Your task to perform on an android device: Look up the best rated wireless earbuds on Ali Express Image 0: 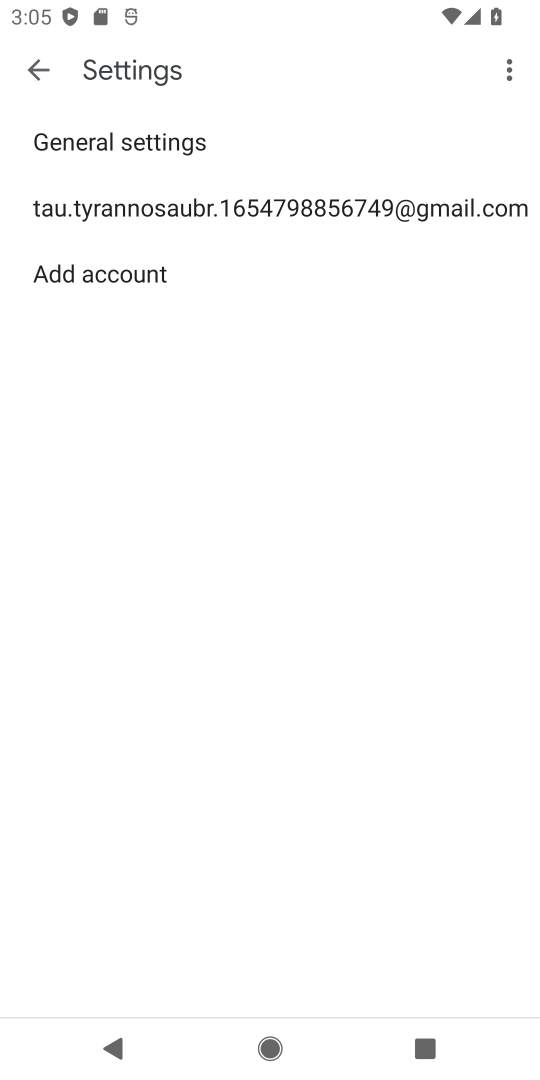
Step 0: press home button
Your task to perform on an android device: Look up the best rated wireless earbuds on Ali Express Image 1: 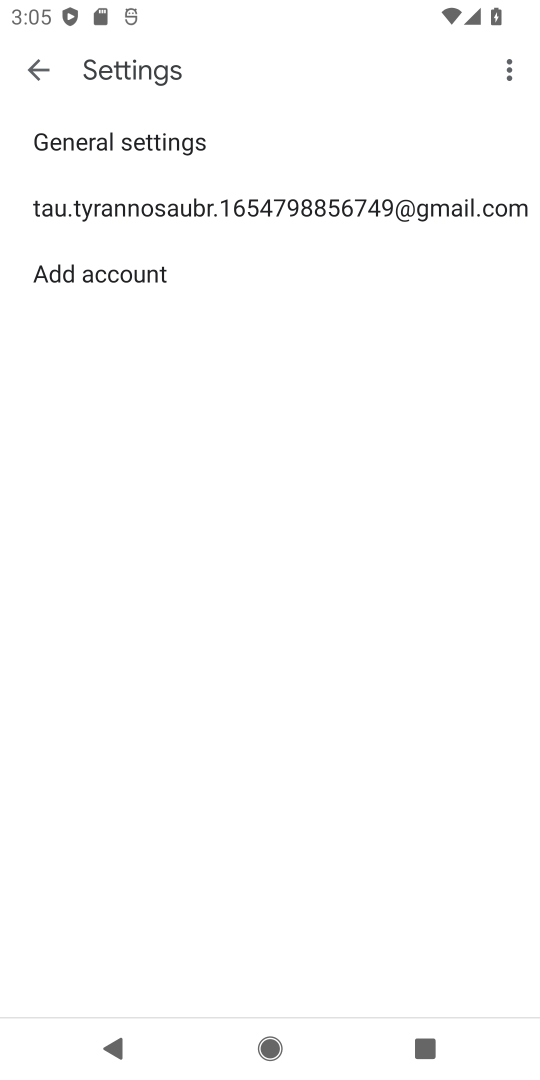
Step 1: type "Aliexpress"
Your task to perform on an android device: Look up the best rated wireless earbuds on Ali Express Image 2: 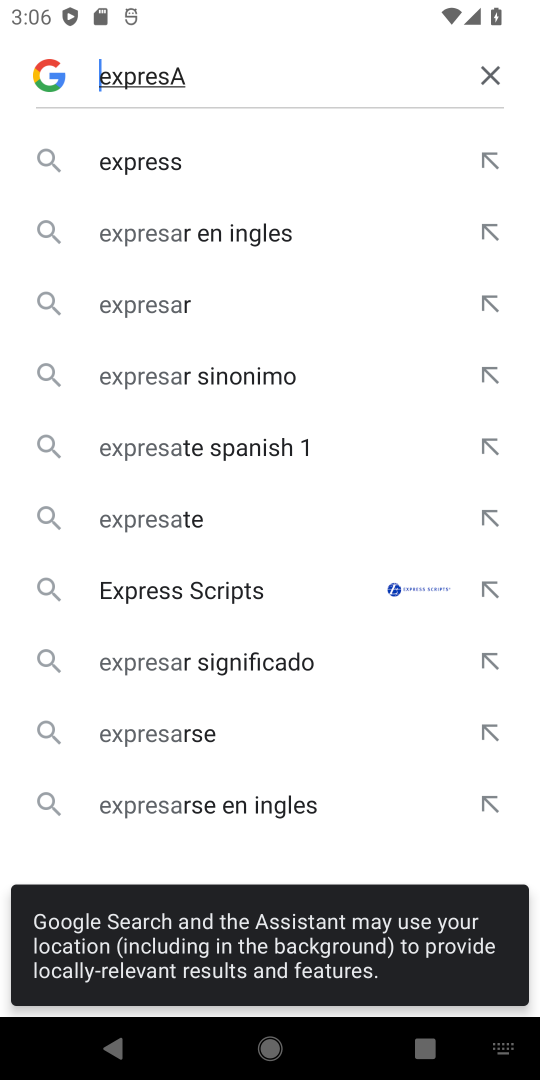
Step 2: press home button
Your task to perform on an android device: Look up the best rated wireless earbuds on Ali Express Image 3: 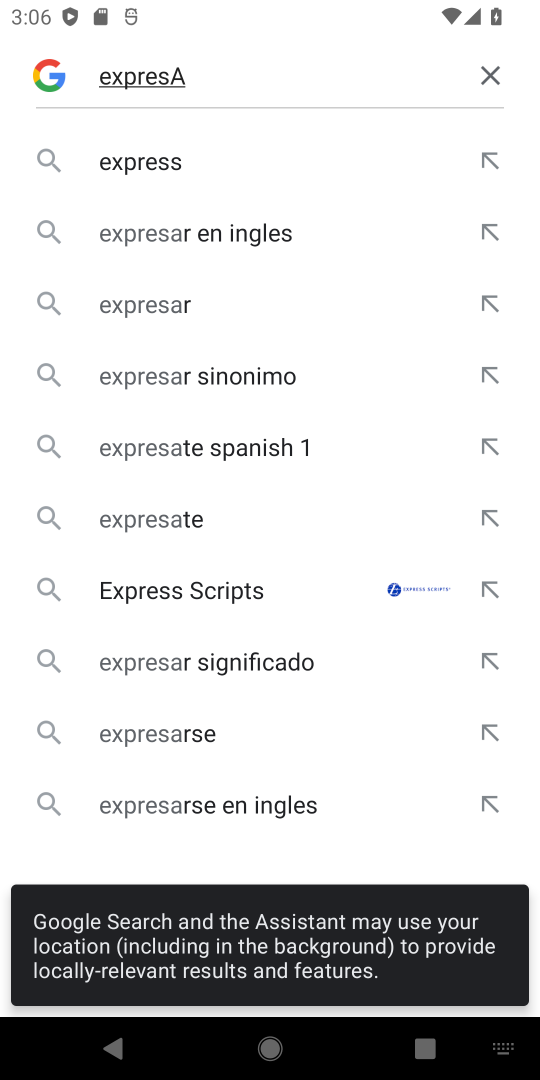
Step 3: press home button
Your task to perform on an android device: Look up the best rated wireless earbuds on Ali Express Image 4: 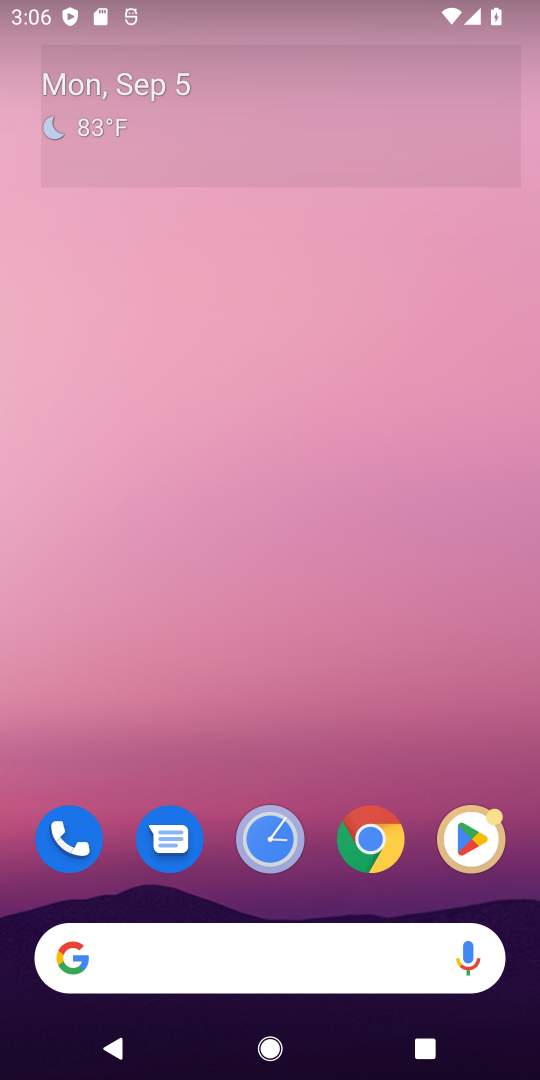
Step 4: click (371, 833)
Your task to perform on an android device: Look up the best rated wireless earbuds on Ali Express Image 5: 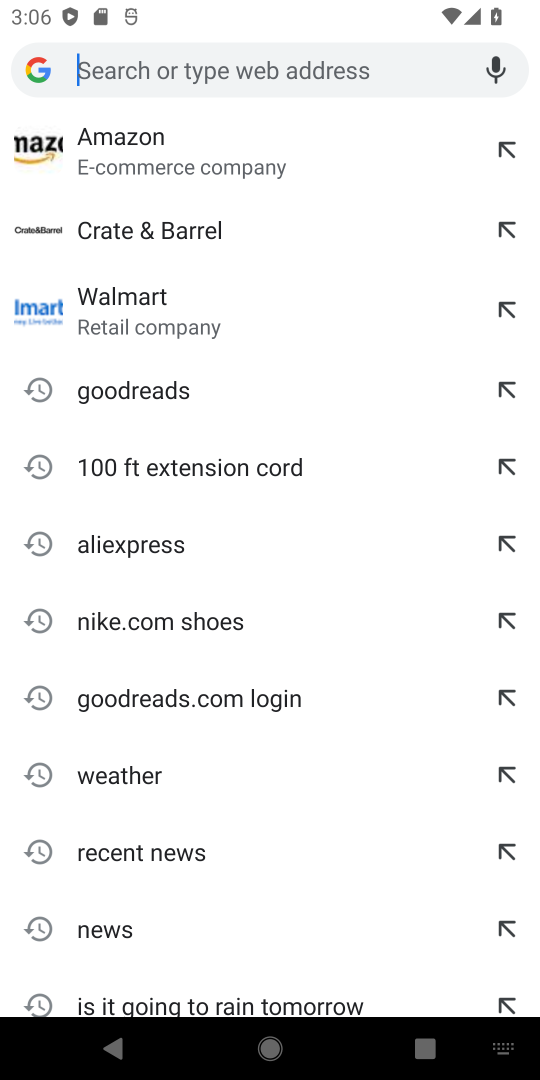
Step 5: type "Ali Express"
Your task to perform on an android device: Look up the best rated wireless earbuds on Ali Express Image 6: 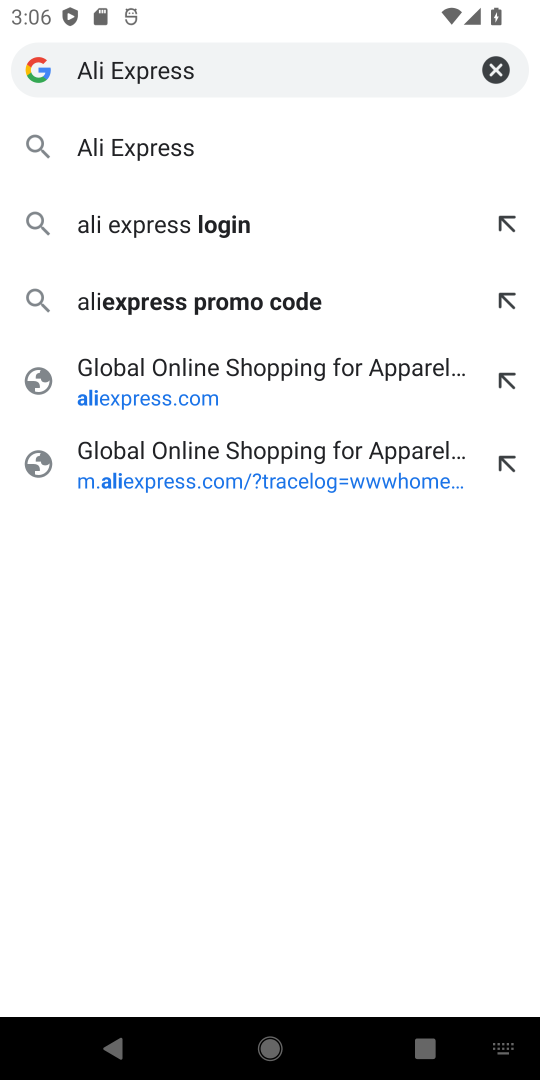
Step 6: click (193, 149)
Your task to perform on an android device: Look up the best rated wireless earbuds on Ali Express Image 7: 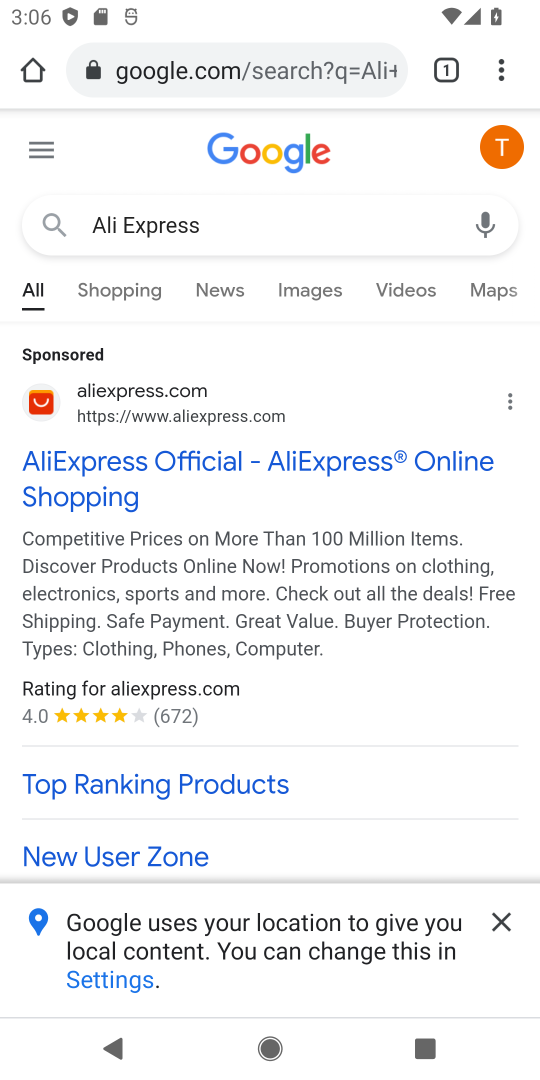
Step 7: click (147, 462)
Your task to perform on an android device: Look up the best rated wireless earbuds on Ali Express Image 8: 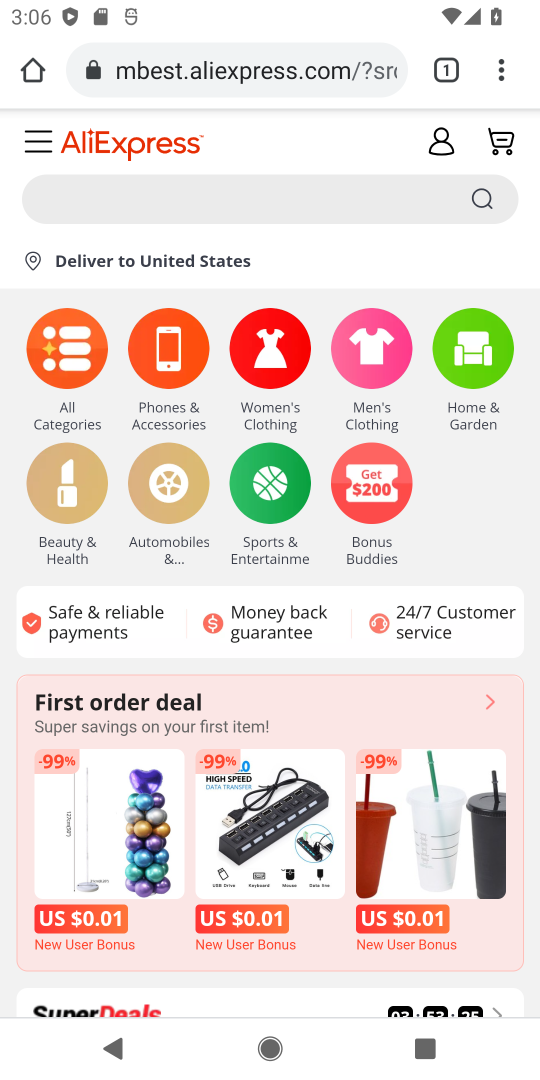
Step 8: click (147, 462)
Your task to perform on an android device: Look up the best rated wireless earbuds on Ali Express Image 9: 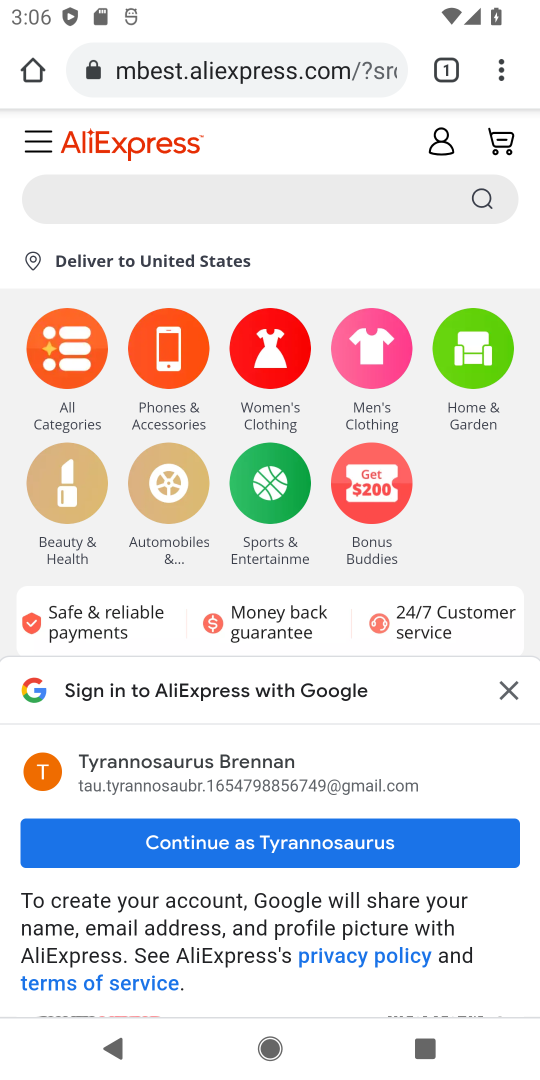
Step 9: click (160, 181)
Your task to perform on an android device: Look up the best rated wireless earbuds on Ali Express Image 10: 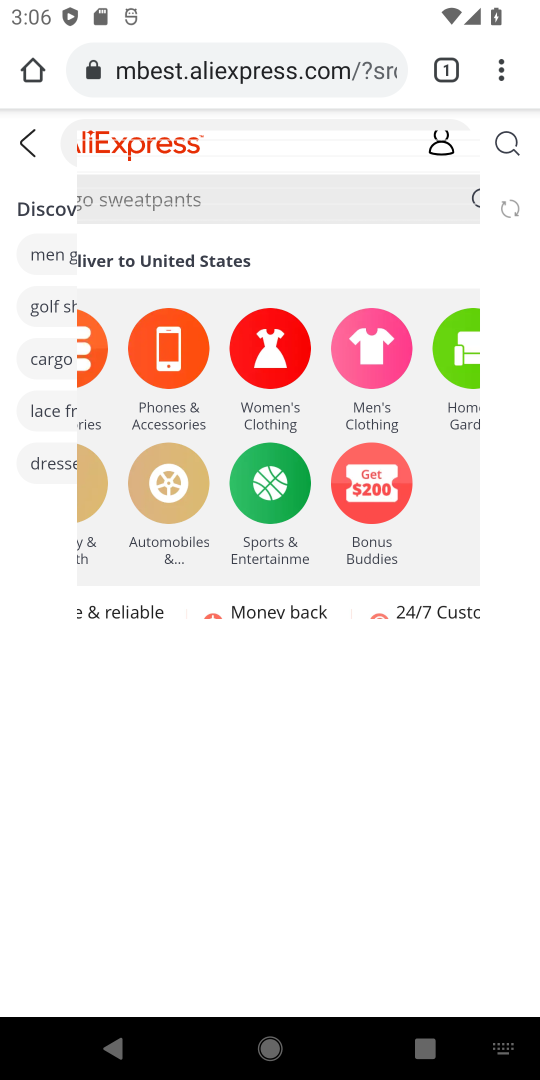
Step 10: type "the best rated wireless earbuds"
Your task to perform on an android device: Look up the best rated wireless earbuds on Ali Express Image 11: 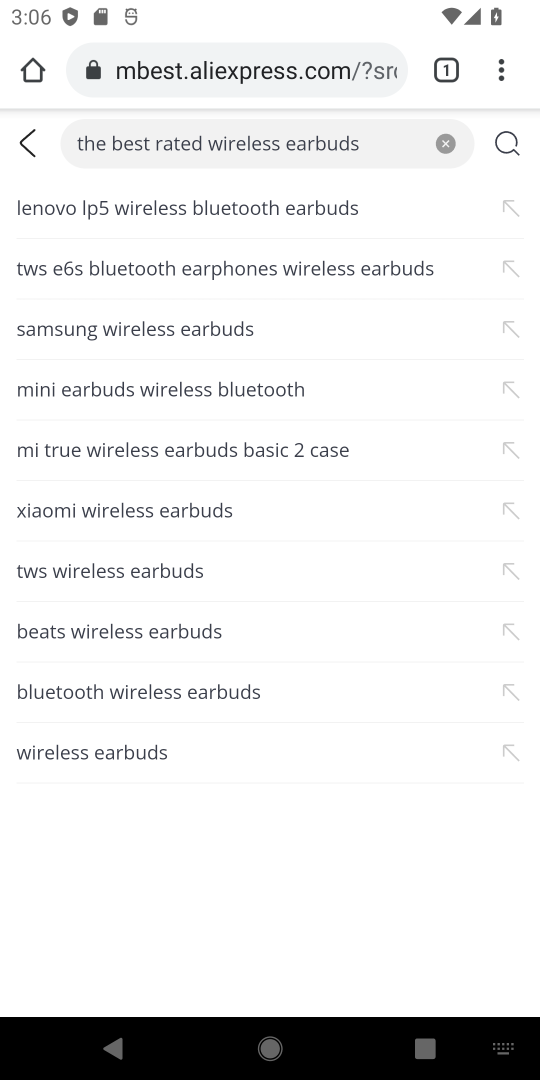
Step 11: click (509, 145)
Your task to perform on an android device: Look up the best rated wireless earbuds on Ali Express Image 12: 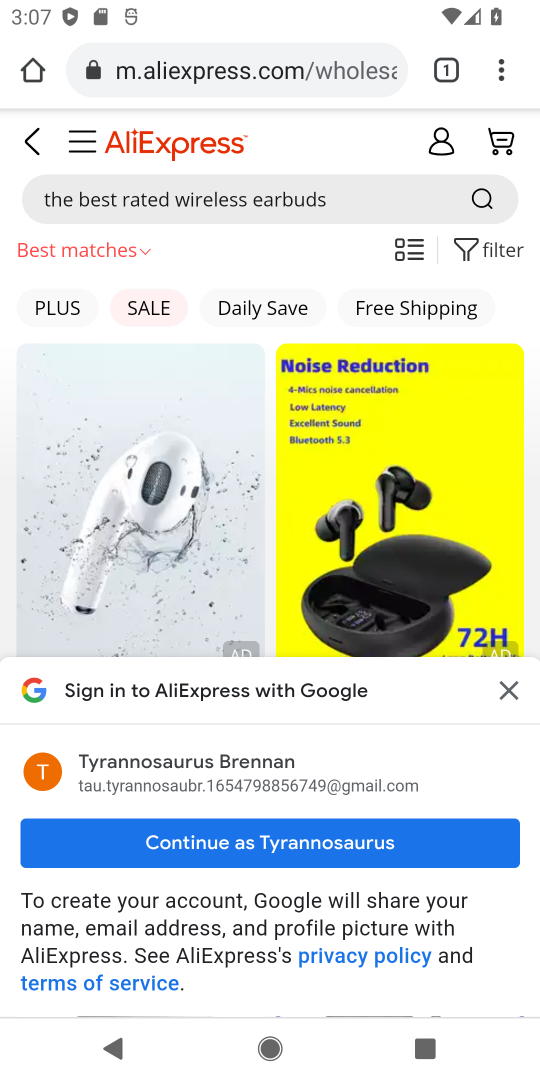
Step 12: click (508, 689)
Your task to perform on an android device: Look up the best rated wireless earbuds on Ali Express Image 13: 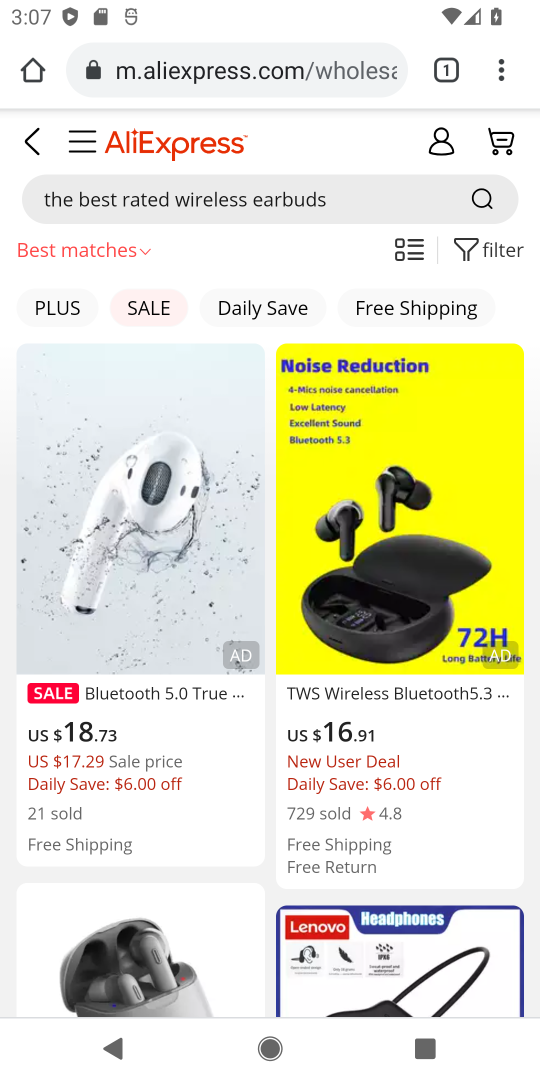
Step 13: task complete